Your task to perform on an android device: What's on my calendar today? Image 0: 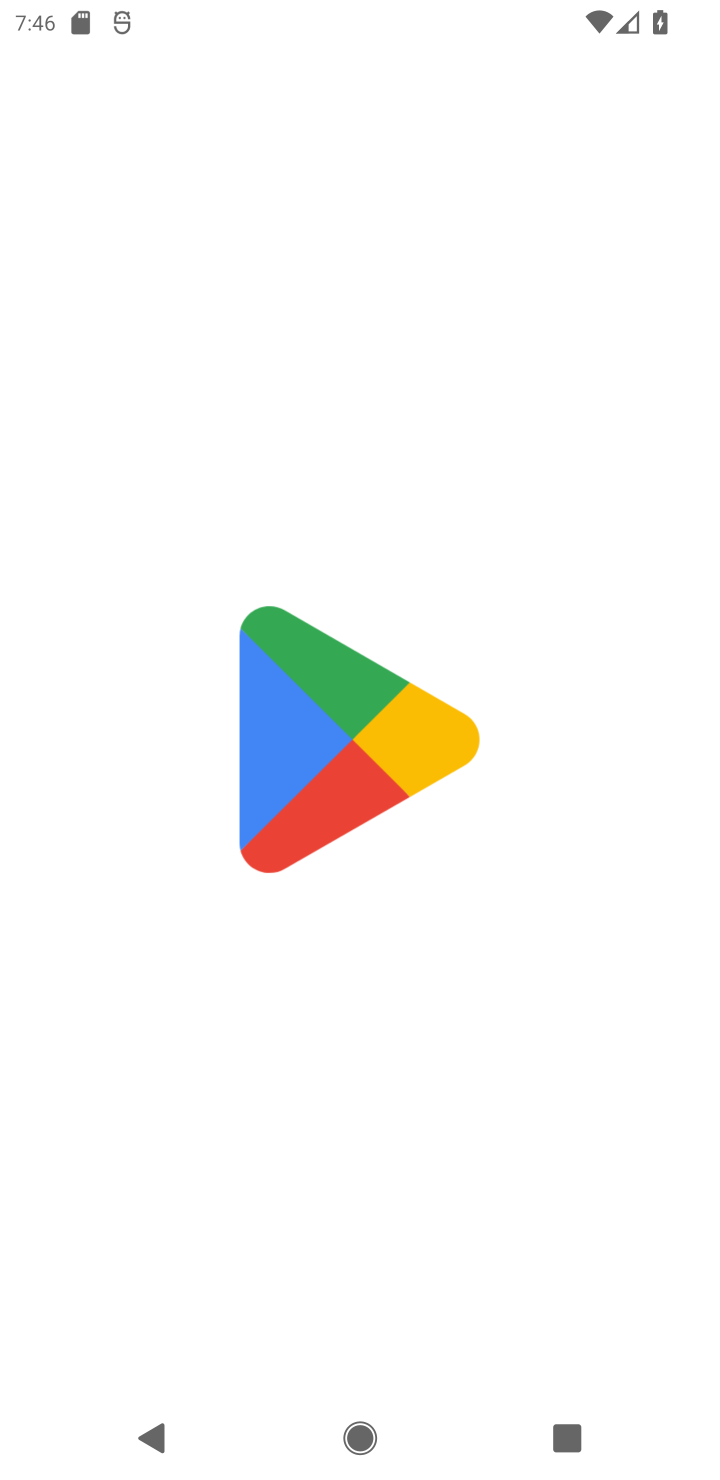
Step 0: press home button
Your task to perform on an android device: What's on my calendar today? Image 1: 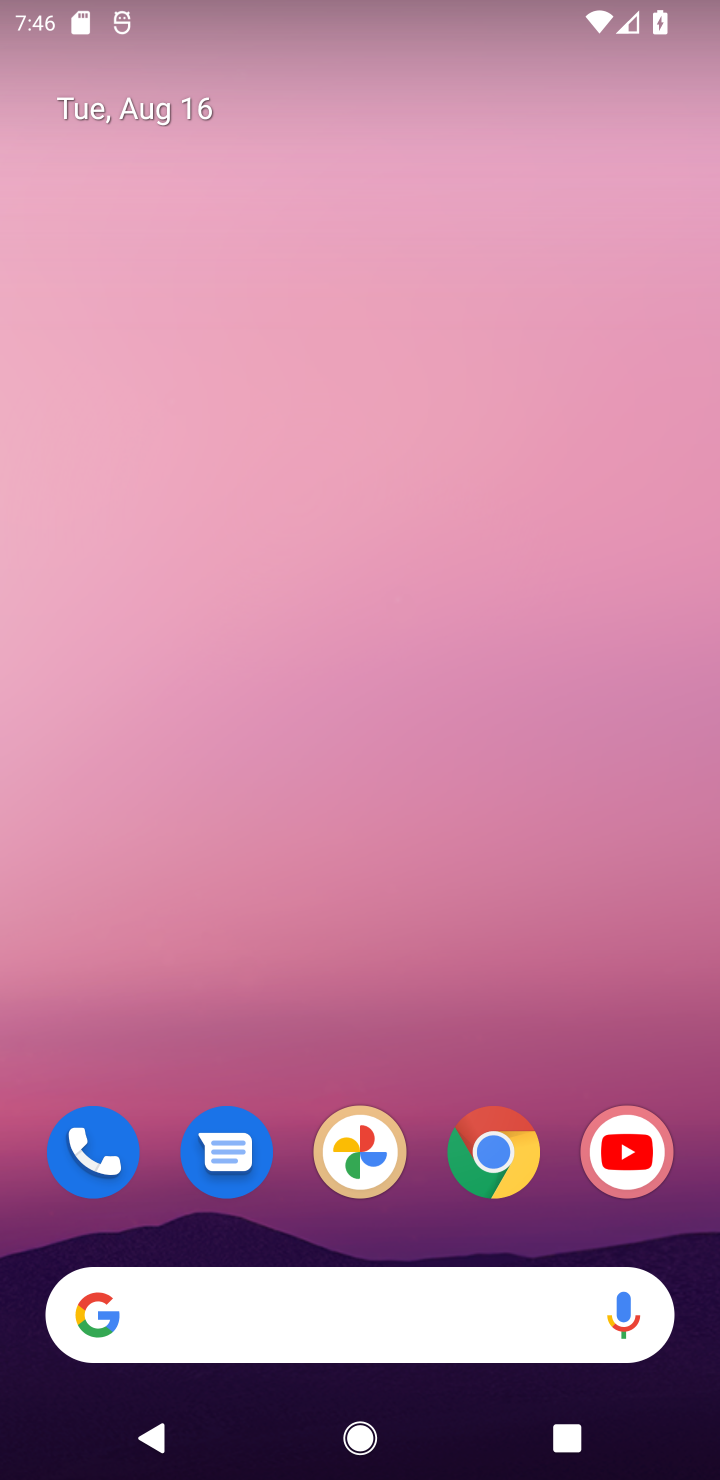
Step 1: drag from (156, 736) to (195, 193)
Your task to perform on an android device: What's on my calendar today? Image 2: 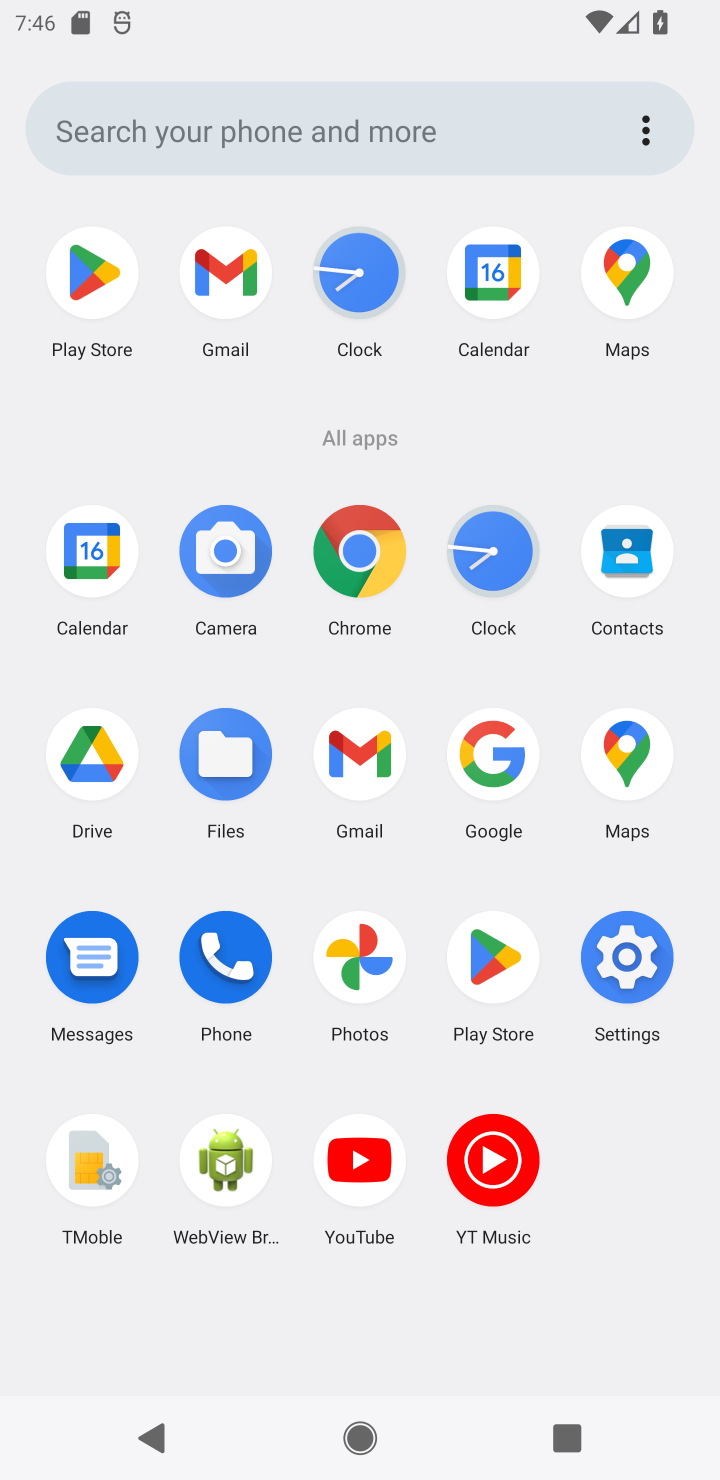
Step 2: click (477, 282)
Your task to perform on an android device: What's on my calendar today? Image 3: 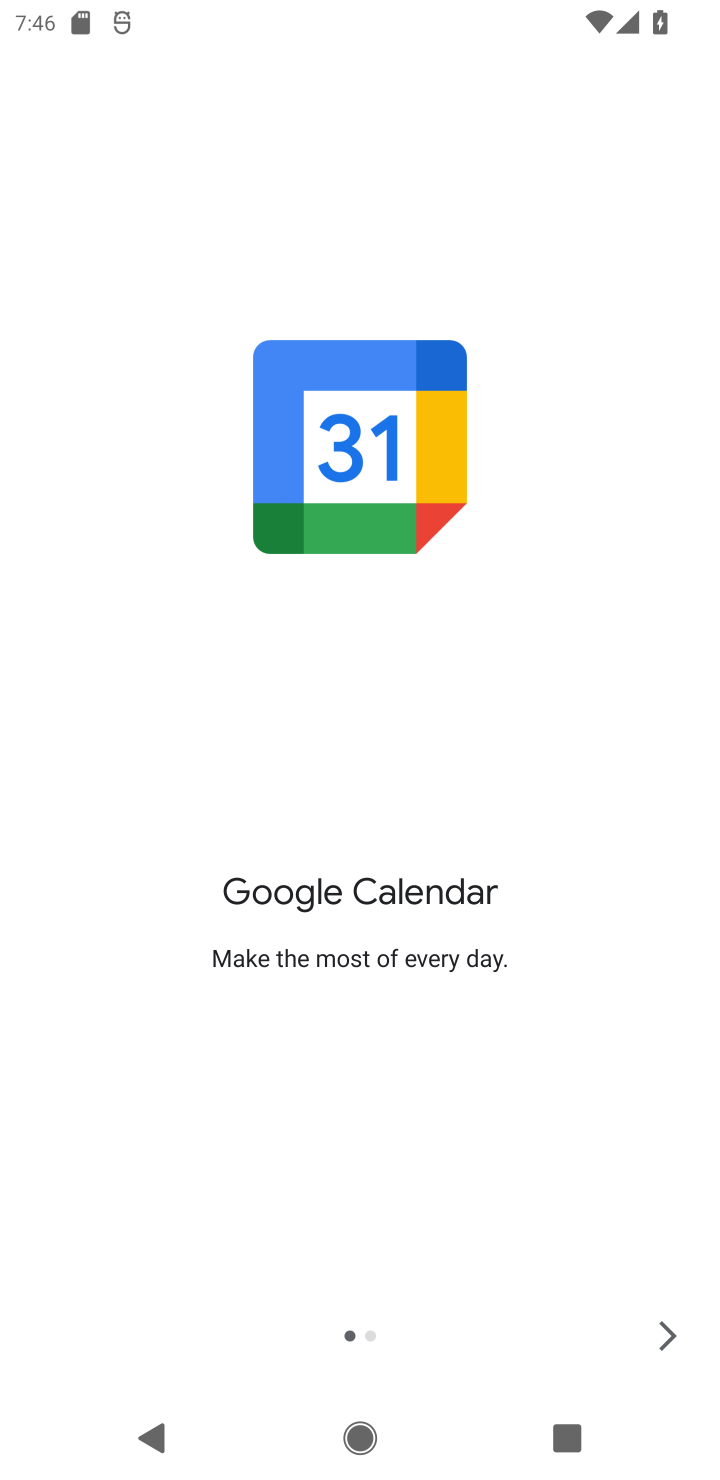
Step 3: click (653, 1336)
Your task to perform on an android device: What's on my calendar today? Image 4: 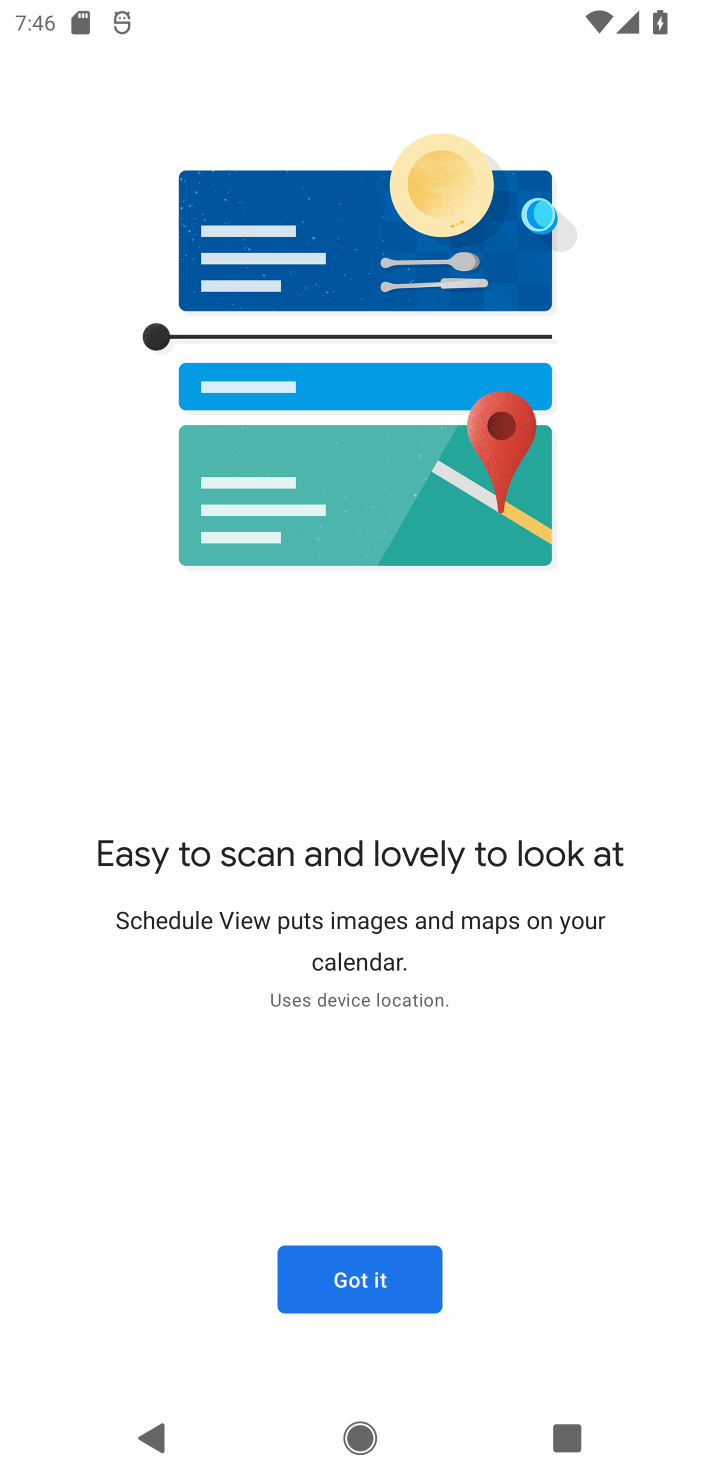
Step 4: click (344, 1284)
Your task to perform on an android device: What's on my calendar today? Image 5: 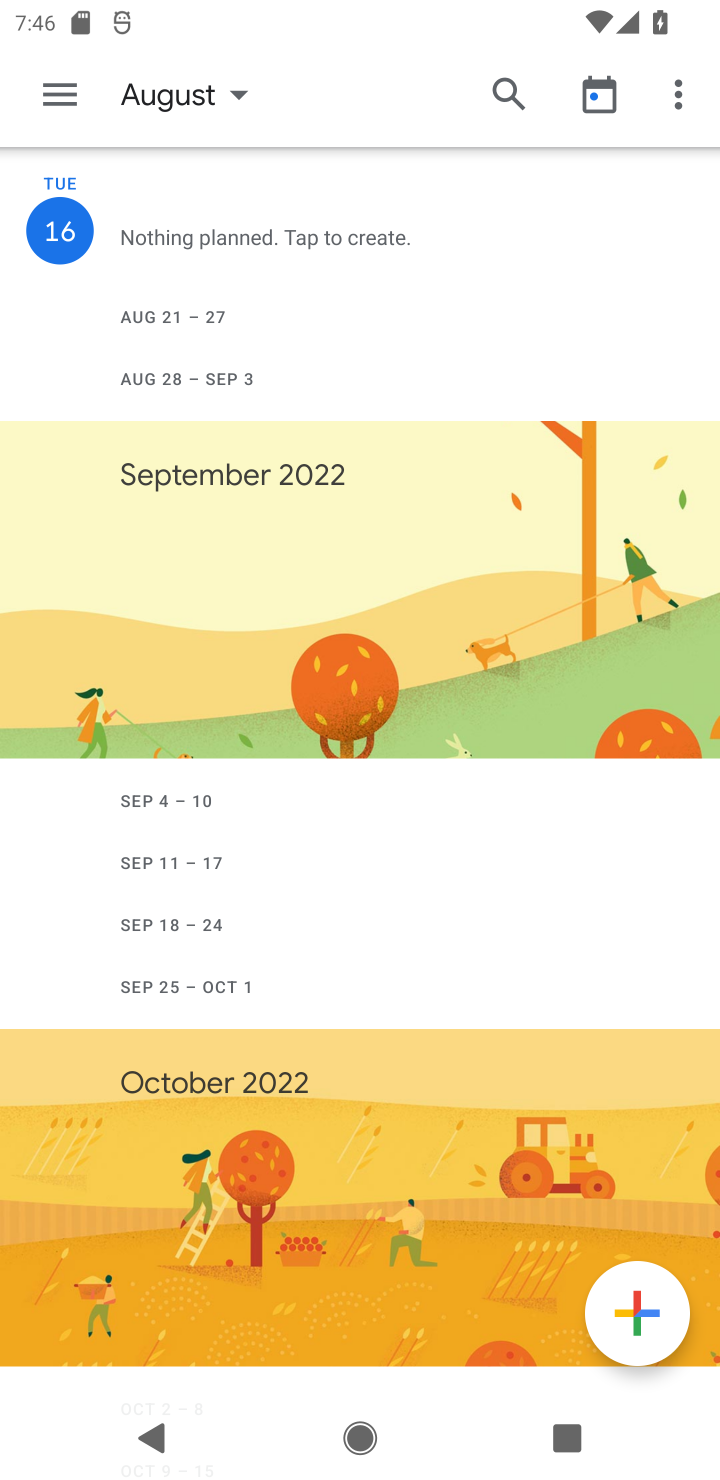
Step 5: task complete